Your task to perform on an android device: When is my next appointment? Image 0: 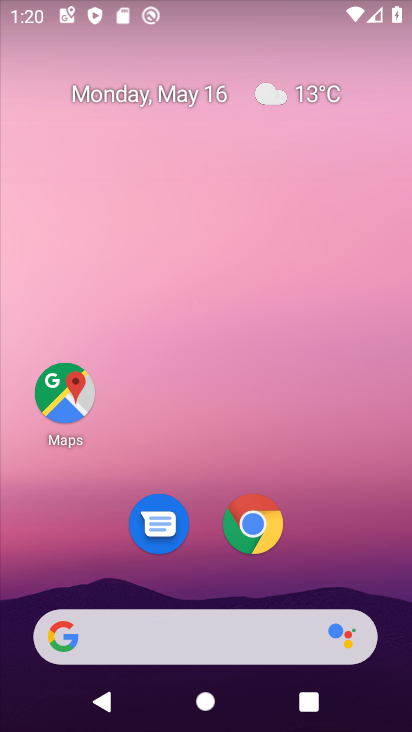
Step 0: drag from (279, 441) to (249, 106)
Your task to perform on an android device: When is my next appointment? Image 1: 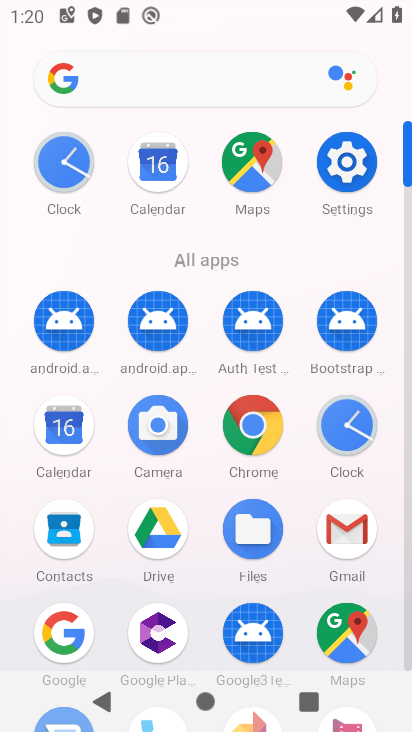
Step 1: click (328, 160)
Your task to perform on an android device: When is my next appointment? Image 2: 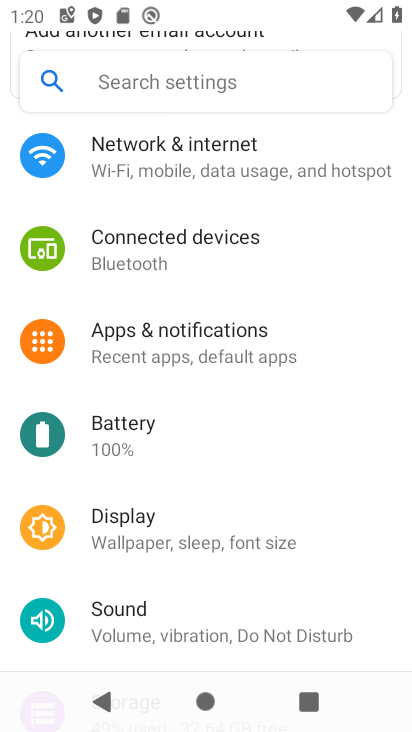
Step 2: press back button
Your task to perform on an android device: When is my next appointment? Image 3: 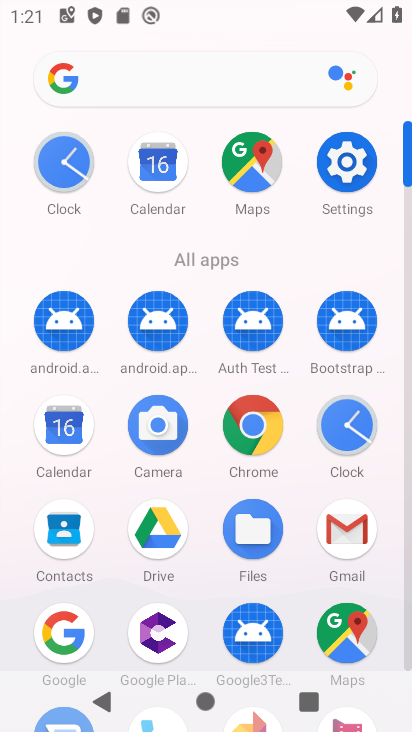
Step 3: click (63, 414)
Your task to perform on an android device: When is my next appointment? Image 4: 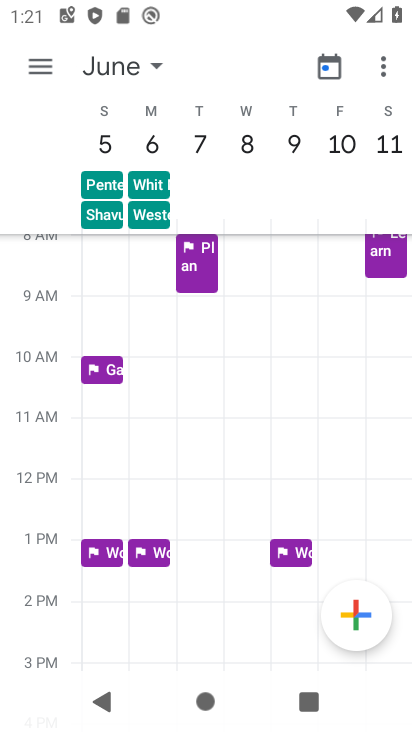
Step 4: click (46, 58)
Your task to perform on an android device: When is my next appointment? Image 5: 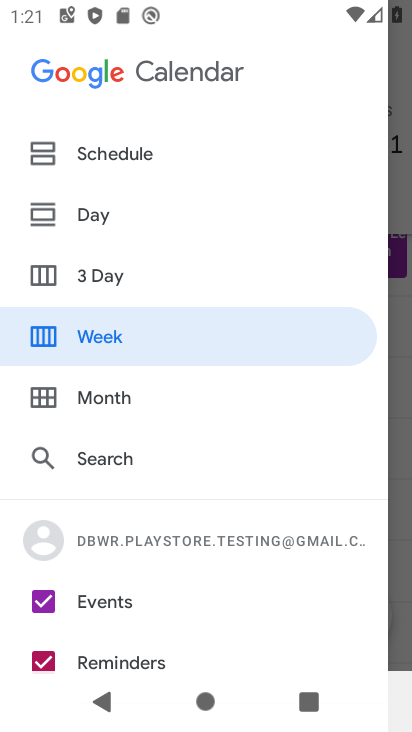
Step 5: click (97, 389)
Your task to perform on an android device: When is my next appointment? Image 6: 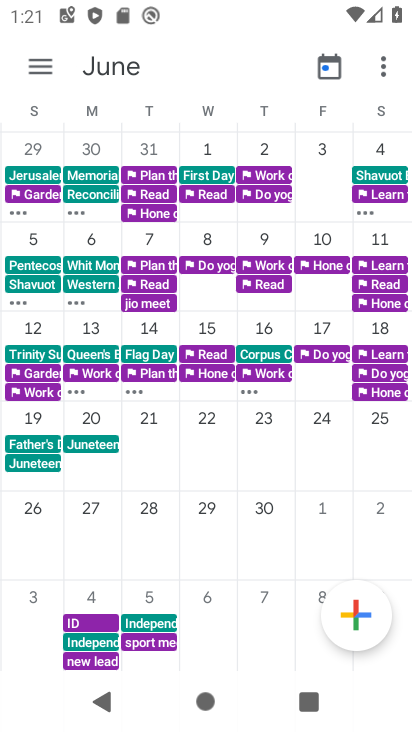
Step 6: drag from (48, 504) to (411, 511)
Your task to perform on an android device: When is my next appointment? Image 7: 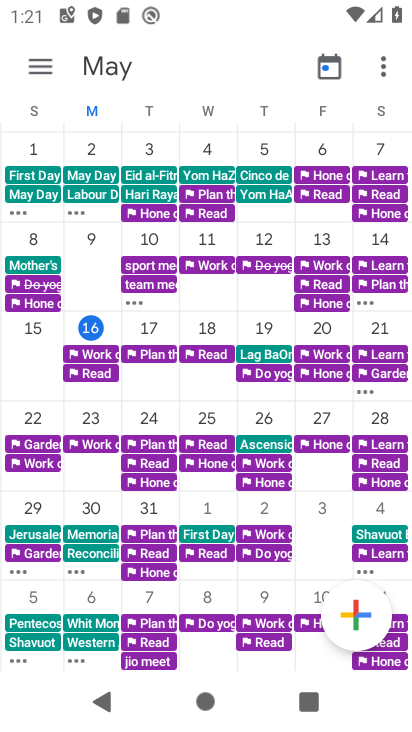
Step 7: click (100, 338)
Your task to perform on an android device: When is my next appointment? Image 8: 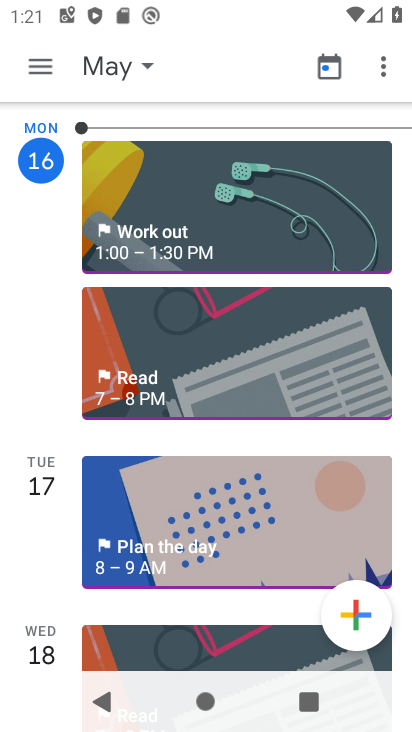
Step 8: task complete